Your task to perform on an android device: Play the last video I watched on Youtube Image 0: 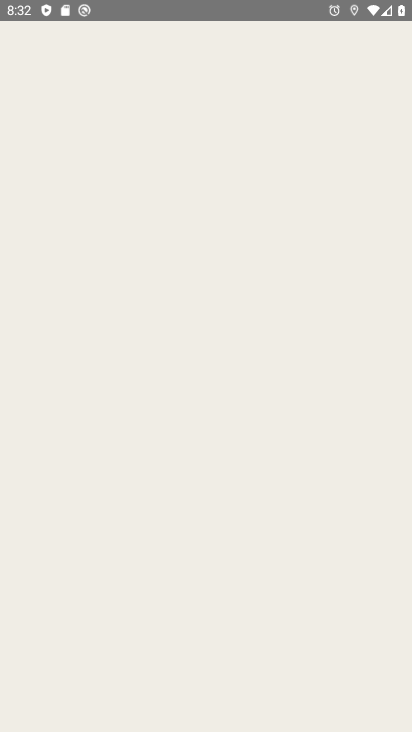
Step 0: press home button
Your task to perform on an android device: Play the last video I watched on Youtube Image 1: 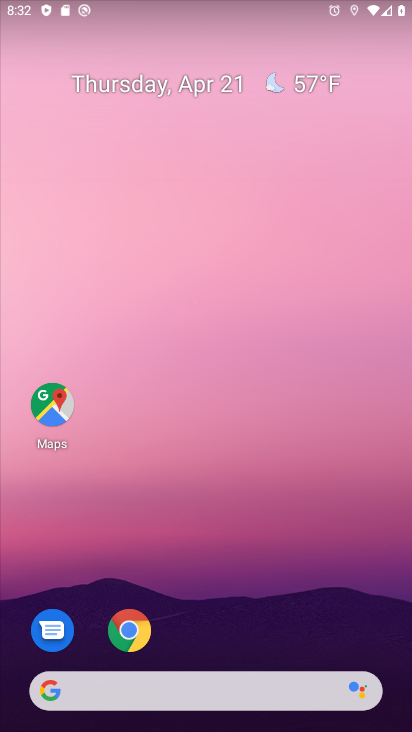
Step 1: drag from (337, 619) to (233, 49)
Your task to perform on an android device: Play the last video I watched on Youtube Image 2: 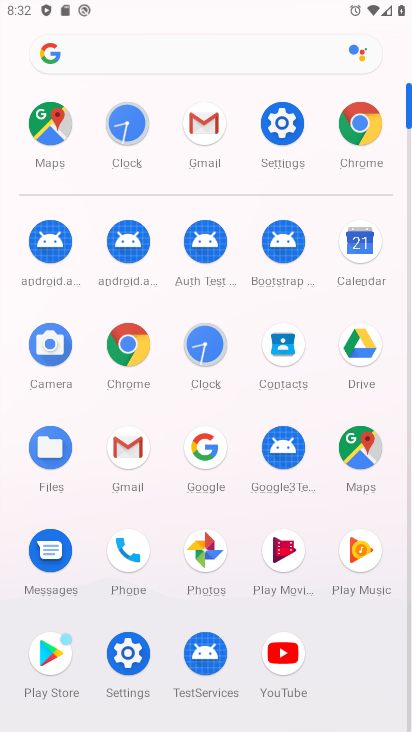
Step 2: click (285, 654)
Your task to perform on an android device: Play the last video I watched on Youtube Image 3: 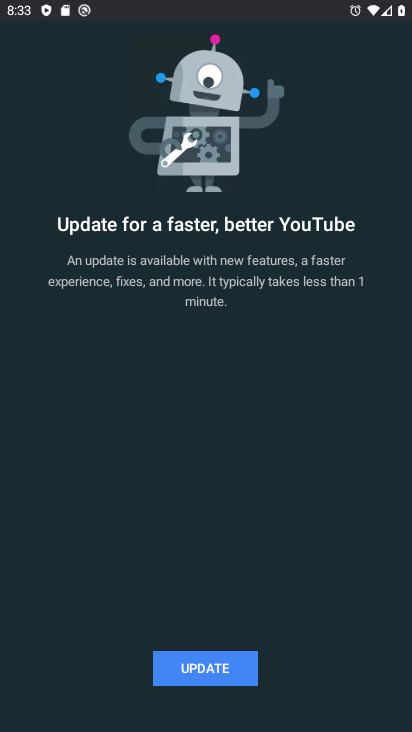
Step 3: click (227, 667)
Your task to perform on an android device: Play the last video I watched on Youtube Image 4: 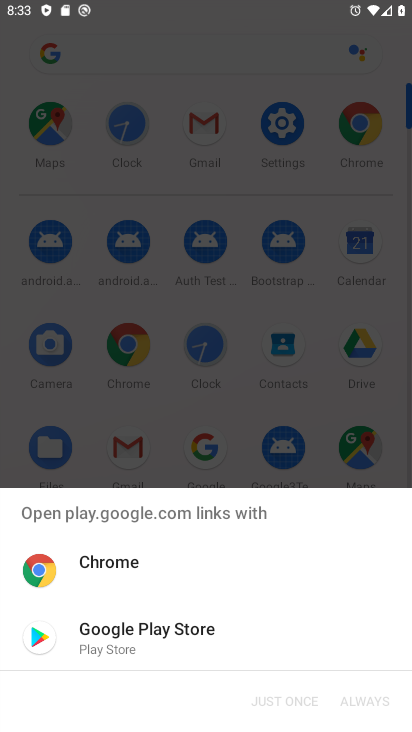
Step 4: click (94, 639)
Your task to perform on an android device: Play the last video I watched on Youtube Image 5: 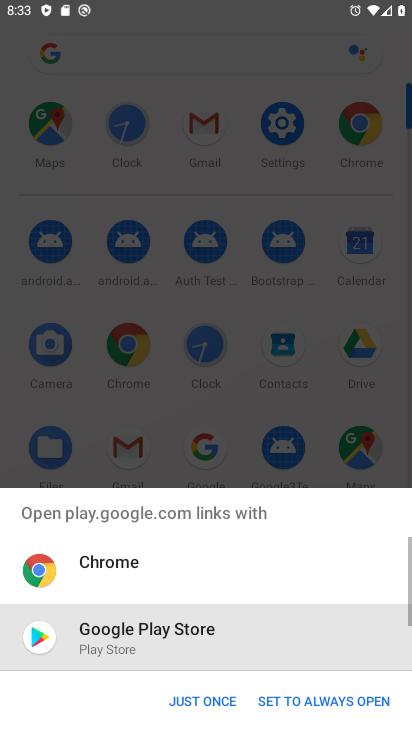
Step 5: click (212, 698)
Your task to perform on an android device: Play the last video I watched on Youtube Image 6: 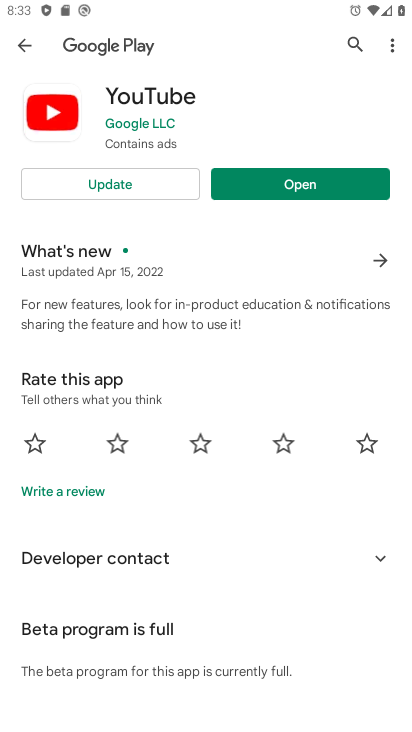
Step 6: click (141, 190)
Your task to perform on an android device: Play the last video I watched on Youtube Image 7: 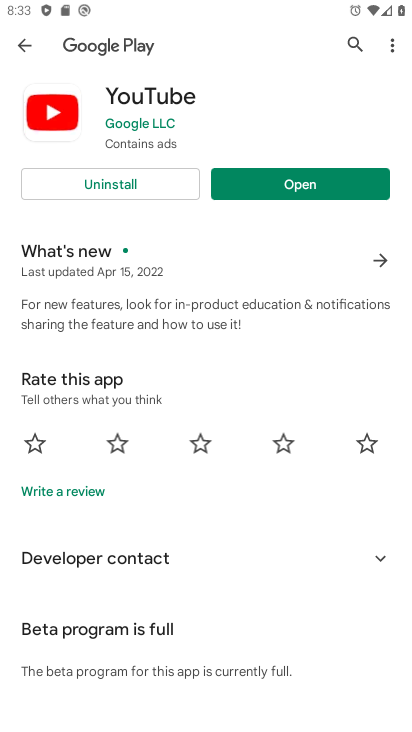
Step 7: click (323, 177)
Your task to perform on an android device: Play the last video I watched on Youtube Image 8: 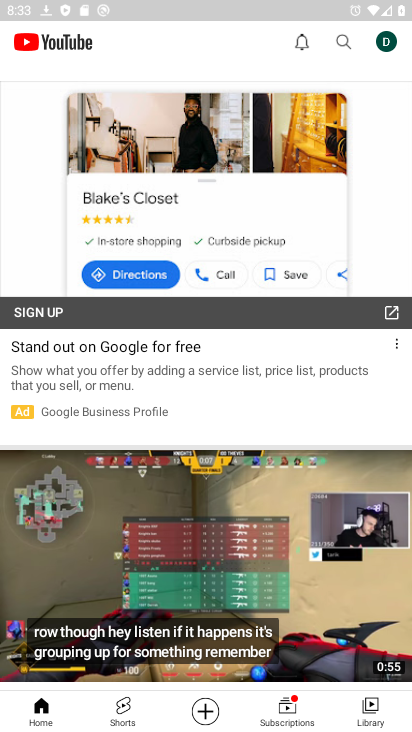
Step 8: click (353, 716)
Your task to perform on an android device: Play the last video I watched on Youtube Image 9: 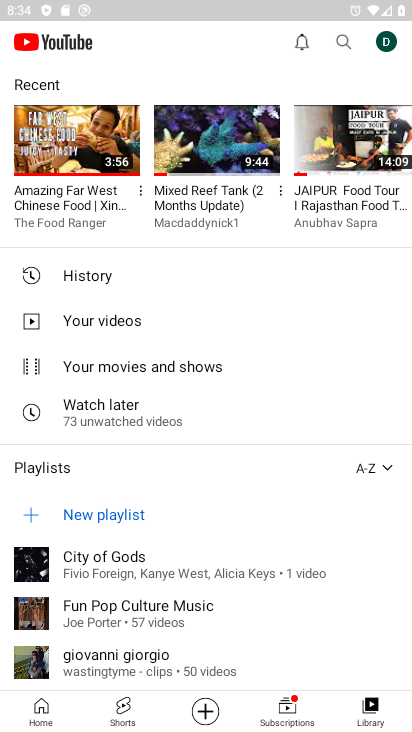
Step 9: click (70, 153)
Your task to perform on an android device: Play the last video I watched on Youtube Image 10: 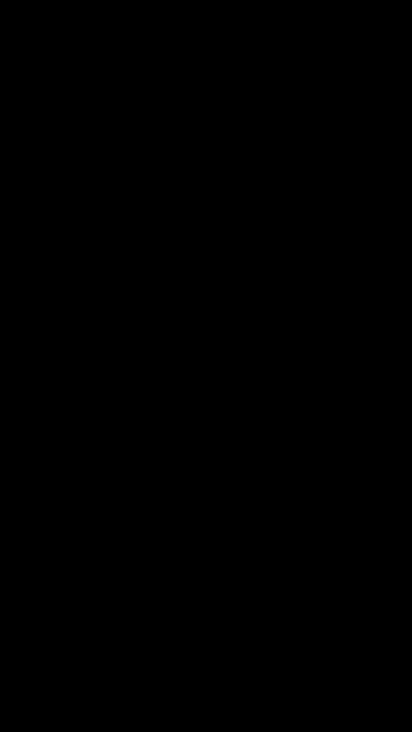
Step 10: task complete